Your task to perform on an android device: Open Google Maps and go to "Timeline" Image 0: 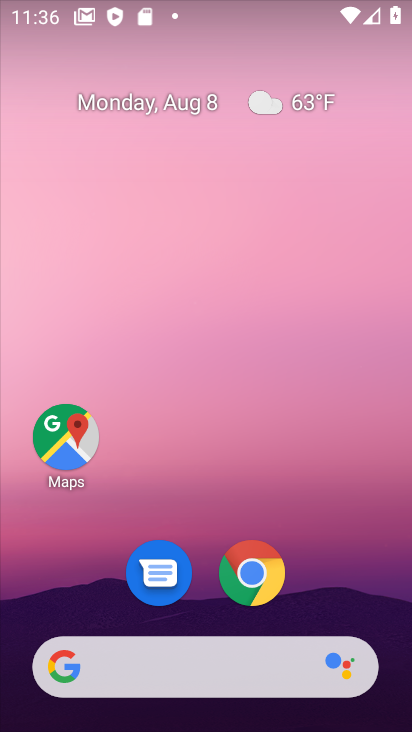
Step 0: click (73, 438)
Your task to perform on an android device: Open Google Maps and go to "Timeline" Image 1: 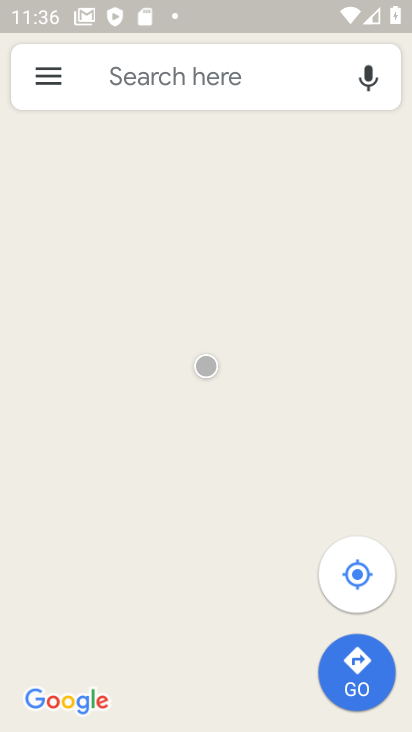
Step 1: click (46, 80)
Your task to perform on an android device: Open Google Maps and go to "Timeline" Image 2: 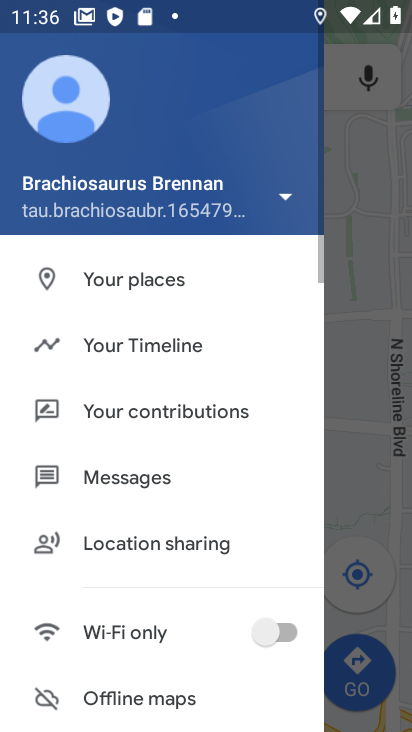
Step 2: click (143, 350)
Your task to perform on an android device: Open Google Maps and go to "Timeline" Image 3: 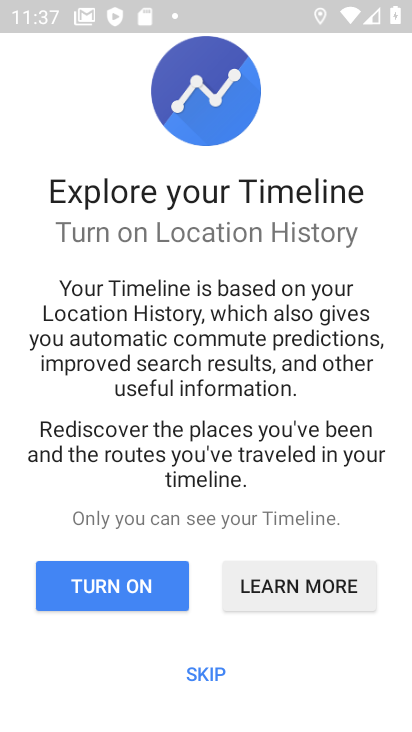
Step 3: click (125, 597)
Your task to perform on an android device: Open Google Maps and go to "Timeline" Image 4: 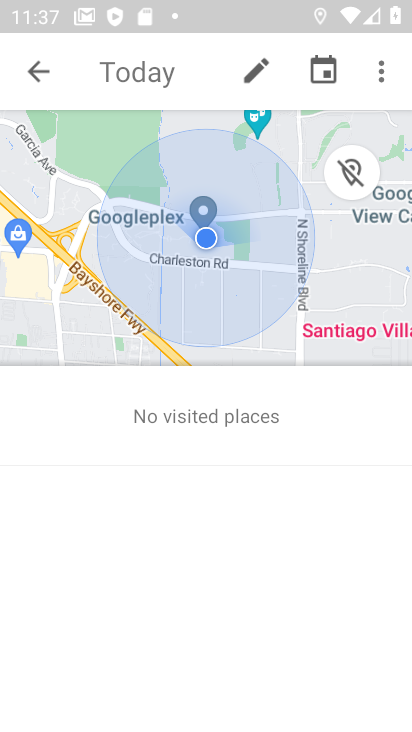
Step 4: task complete